Your task to perform on an android device: check data usage Image 0: 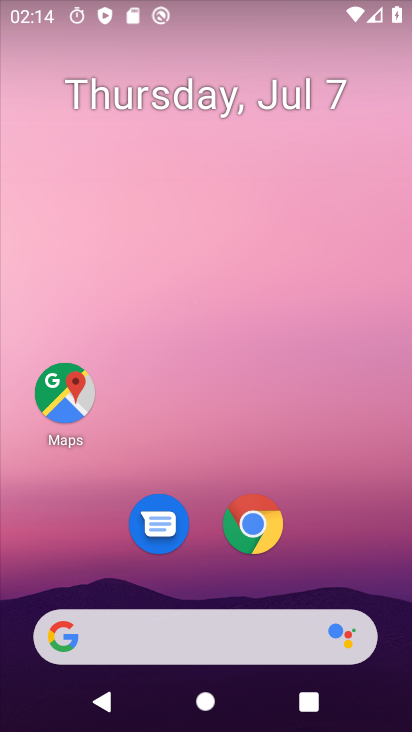
Step 0: drag from (331, 539) to (327, 42)
Your task to perform on an android device: check data usage Image 1: 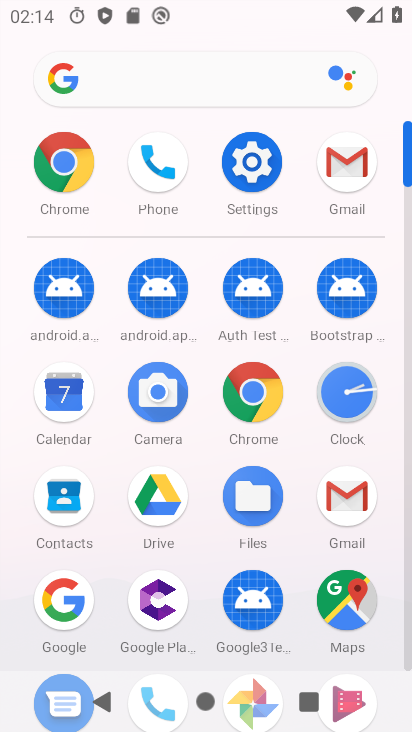
Step 1: click (270, 163)
Your task to perform on an android device: check data usage Image 2: 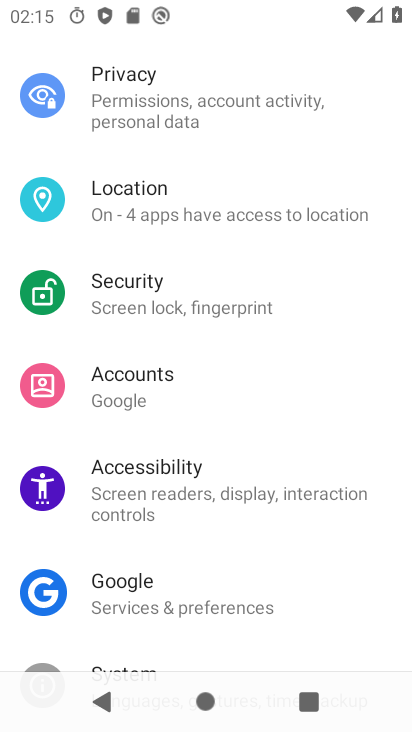
Step 2: drag from (270, 165) to (244, 689)
Your task to perform on an android device: check data usage Image 3: 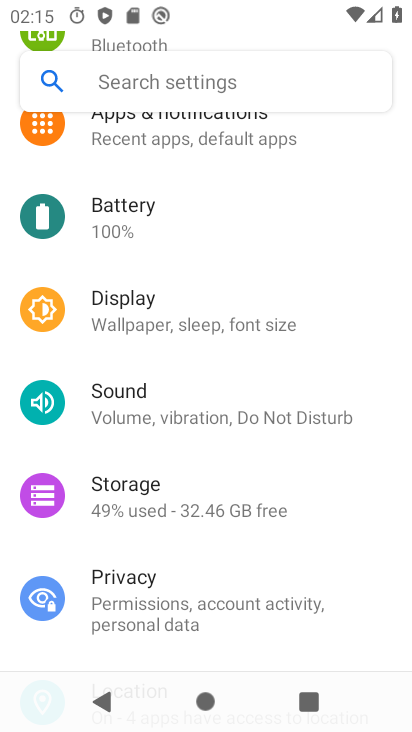
Step 3: drag from (230, 213) to (223, 599)
Your task to perform on an android device: check data usage Image 4: 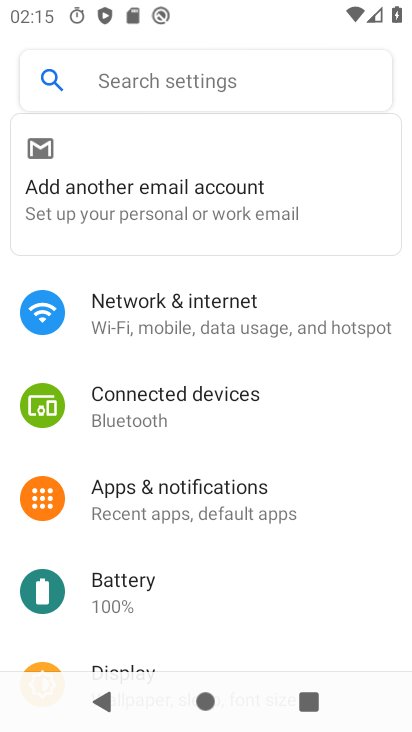
Step 4: click (241, 309)
Your task to perform on an android device: check data usage Image 5: 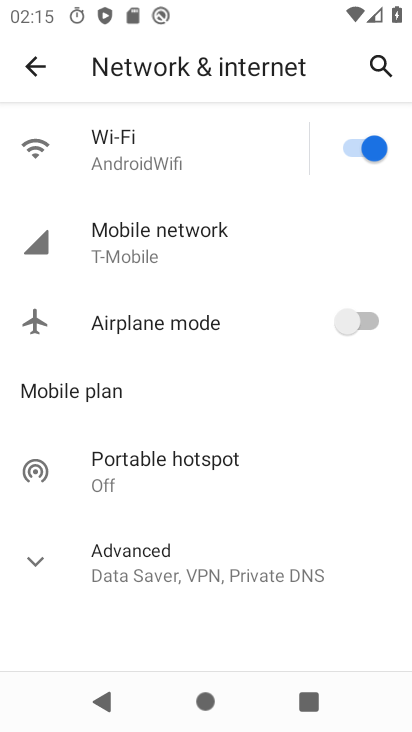
Step 5: click (218, 233)
Your task to perform on an android device: check data usage Image 6: 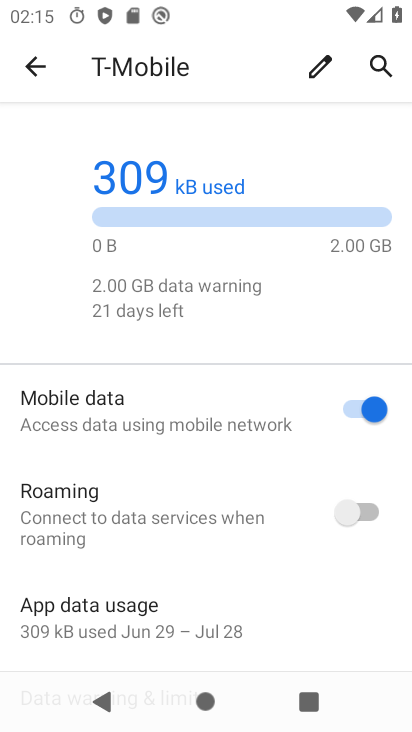
Step 6: task complete